Your task to perform on an android device: Open location settings Image 0: 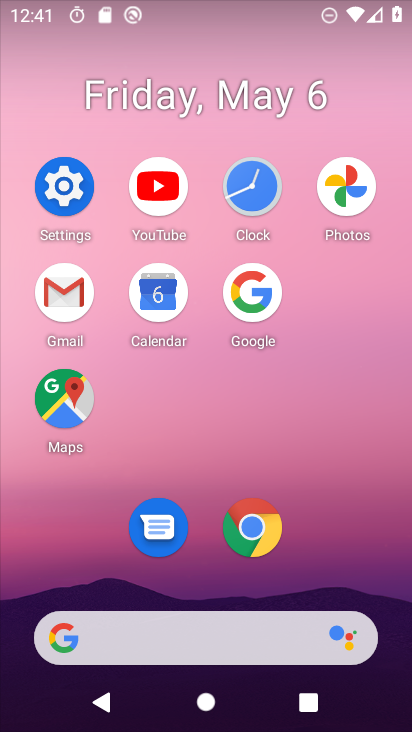
Step 0: click (75, 188)
Your task to perform on an android device: Open location settings Image 1: 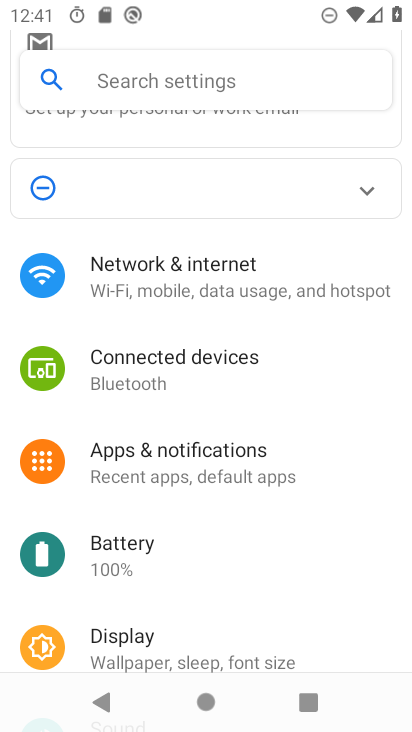
Step 1: drag from (291, 597) to (259, 194)
Your task to perform on an android device: Open location settings Image 2: 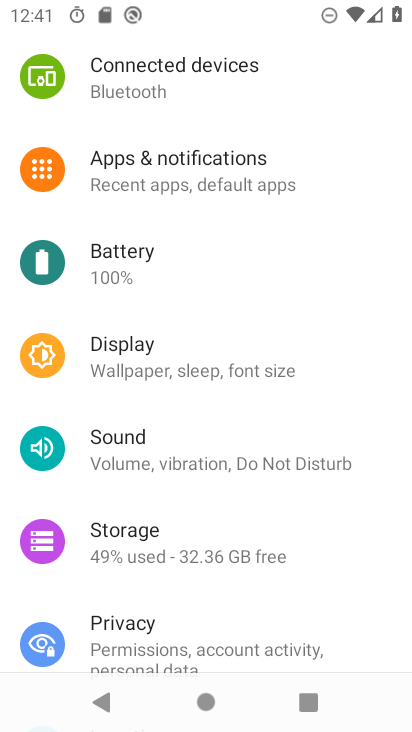
Step 2: drag from (284, 619) to (266, 174)
Your task to perform on an android device: Open location settings Image 3: 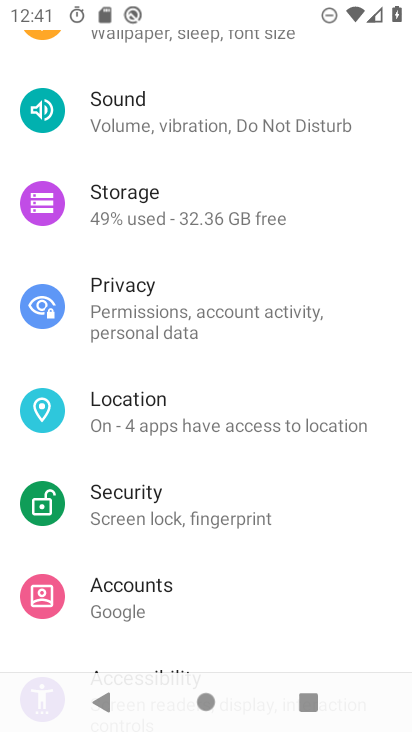
Step 3: click (328, 416)
Your task to perform on an android device: Open location settings Image 4: 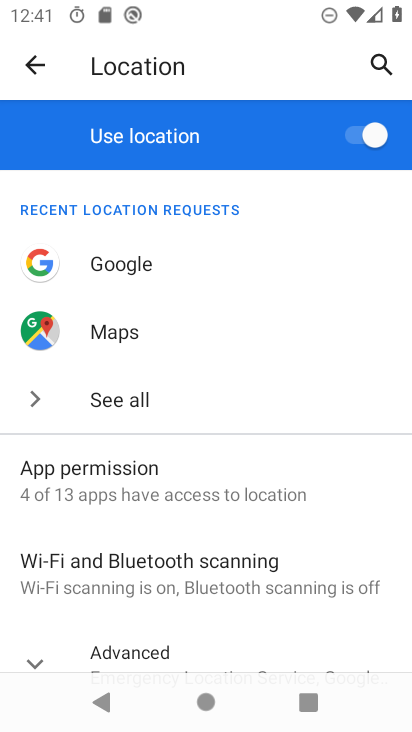
Step 4: task complete